Your task to perform on an android device: Open maps Image 0: 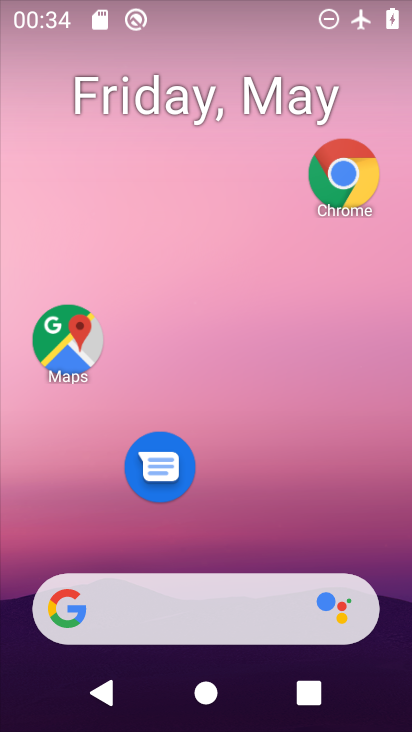
Step 0: click (77, 338)
Your task to perform on an android device: Open maps Image 1: 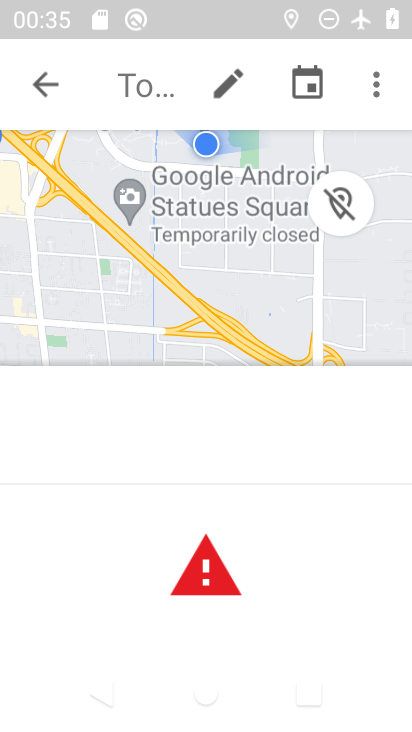
Step 1: task complete